Your task to perform on an android device: toggle translation in the chrome app Image 0: 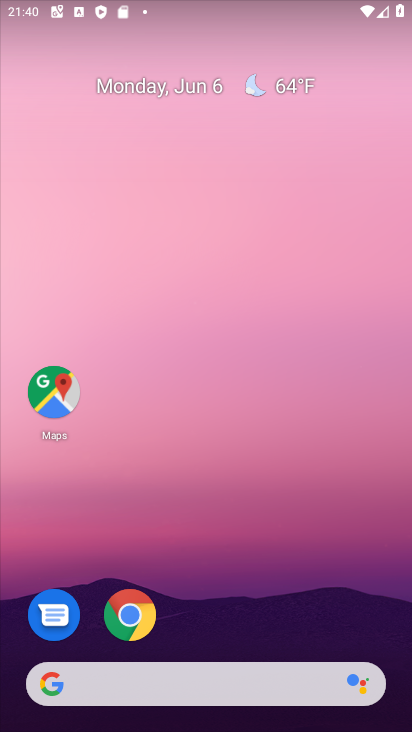
Step 0: click (134, 620)
Your task to perform on an android device: toggle translation in the chrome app Image 1: 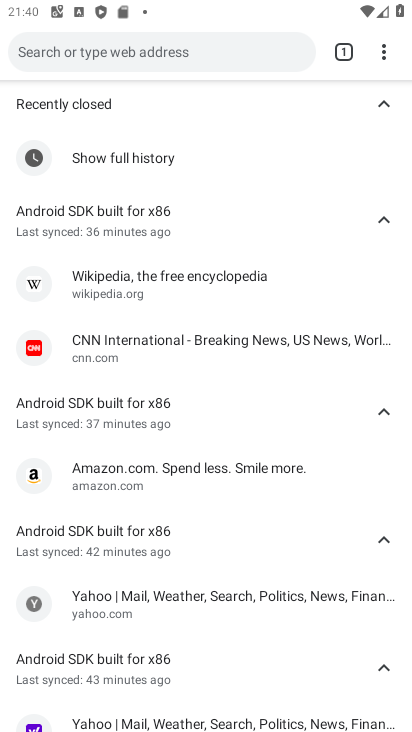
Step 1: click (384, 50)
Your task to perform on an android device: toggle translation in the chrome app Image 2: 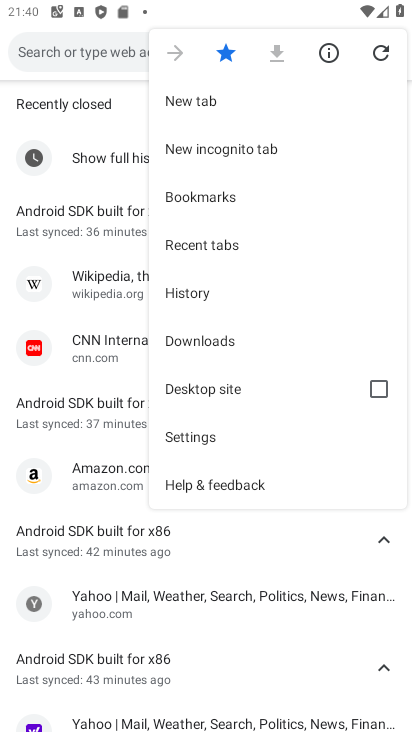
Step 2: click (204, 425)
Your task to perform on an android device: toggle translation in the chrome app Image 3: 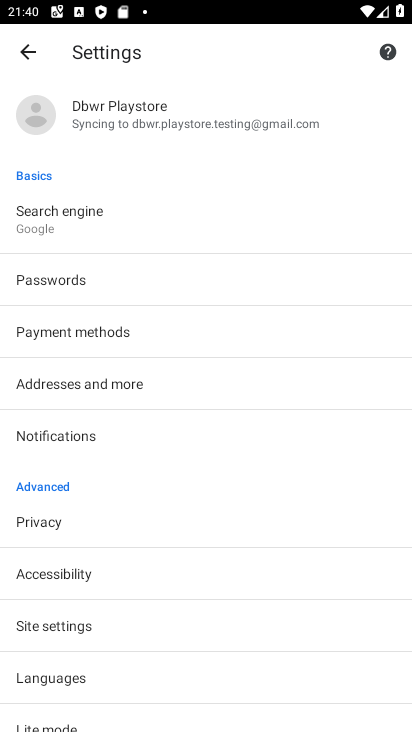
Step 3: click (73, 671)
Your task to perform on an android device: toggle translation in the chrome app Image 4: 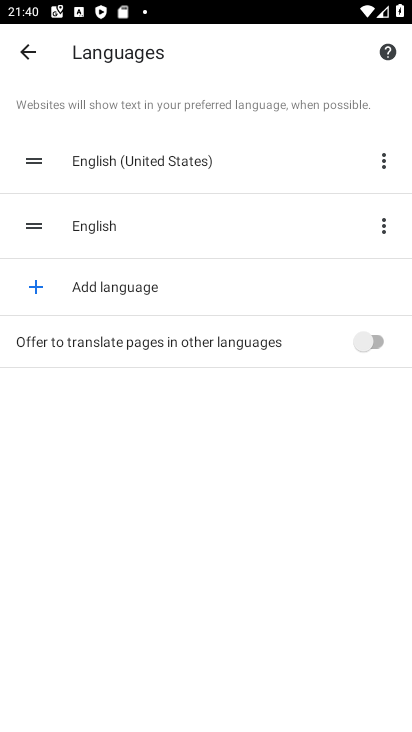
Step 4: click (380, 331)
Your task to perform on an android device: toggle translation in the chrome app Image 5: 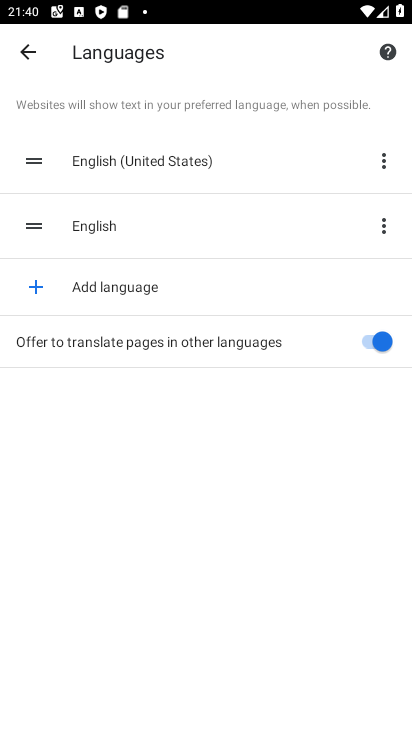
Step 5: task complete